Your task to perform on an android device: turn on translation in the chrome app Image 0: 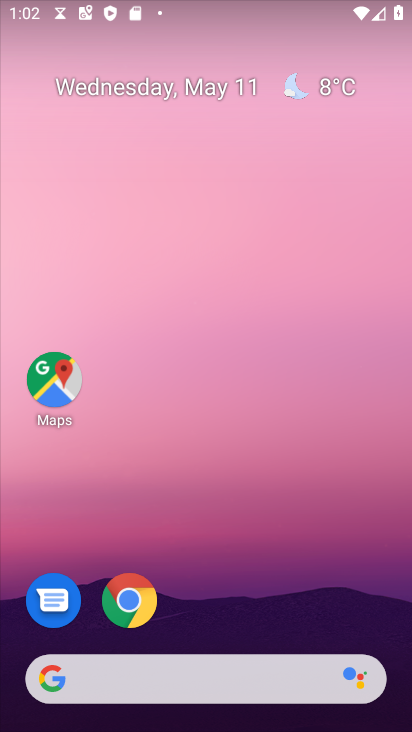
Step 0: click (144, 604)
Your task to perform on an android device: turn on translation in the chrome app Image 1: 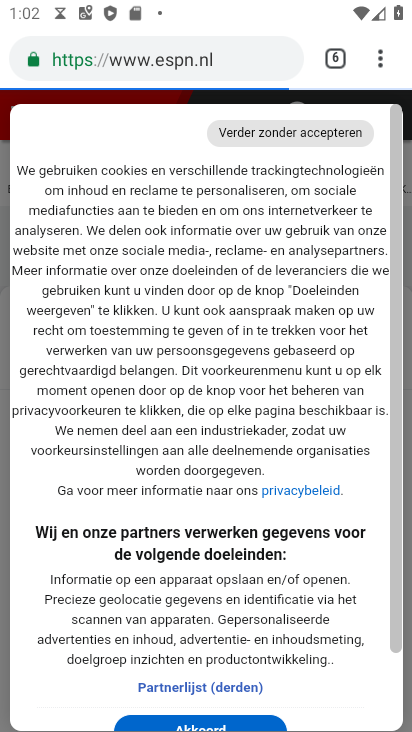
Step 1: click (378, 67)
Your task to perform on an android device: turn on translation in the chrome app Image 2: 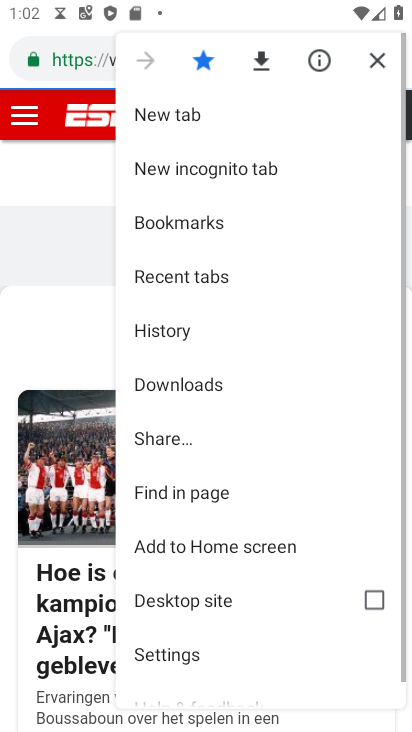
Step 2: drag from (305, 619) to (299, 301)
Your task to perform on an android device: turn on translation in the chrome app Image 3: 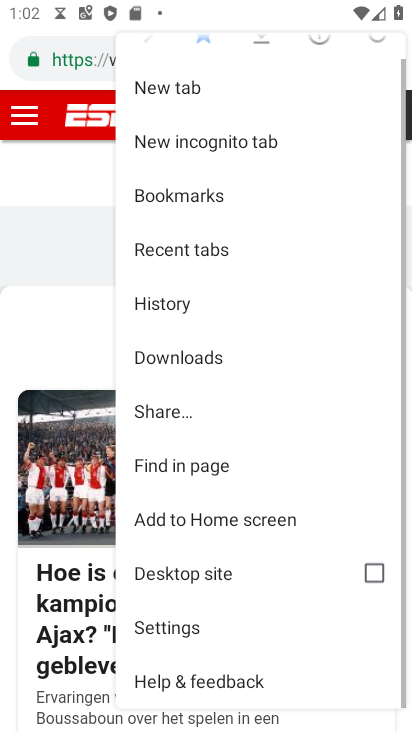
Step 3: click (210, 616)
Your task to perform on an android device: turn on translation in the chrome app Image 4: 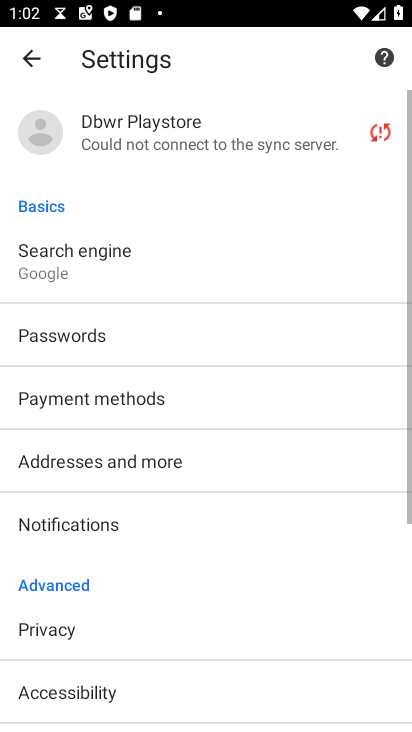
Step 4: drag from (193, 631) to (230, 171)
Your task to perform on an android device: turn on translation in the chrome app Image 5: 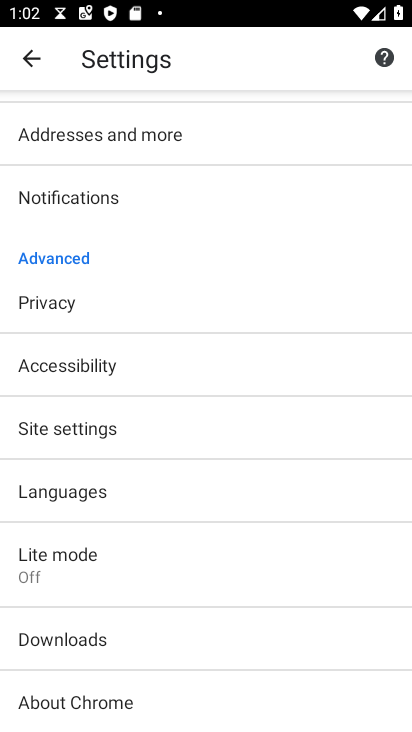
Step 5: click (123, 488)
Your task to perform on an android device: turn on translation in the chrome app Image 6: 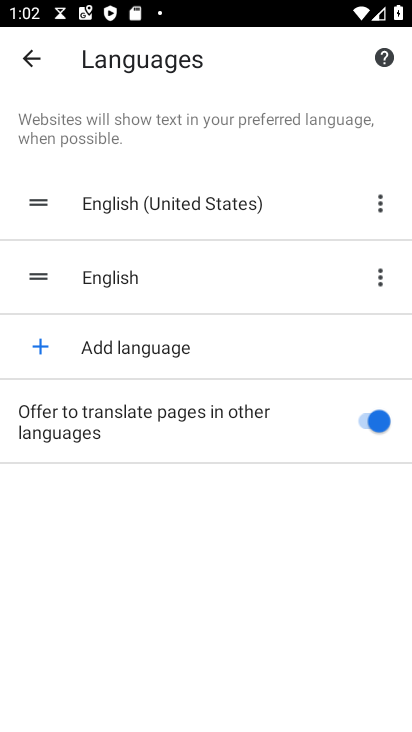
Step 6: task complete